Your task to perform on an android device: change the clock display to analog Image 0: 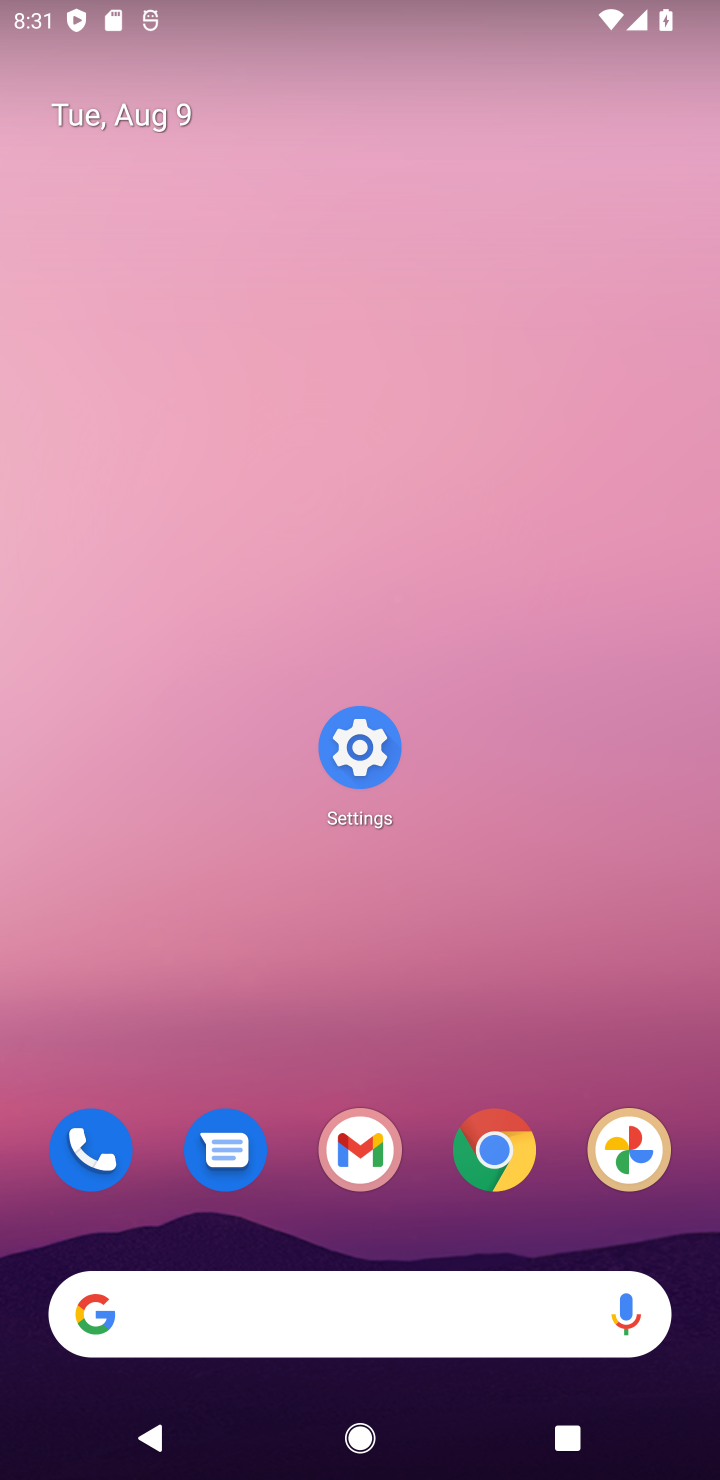
Step 0: drag from (396, 1027) to (471, 345)
Your task to perform on an android device: change the clock display to analog Image 1: 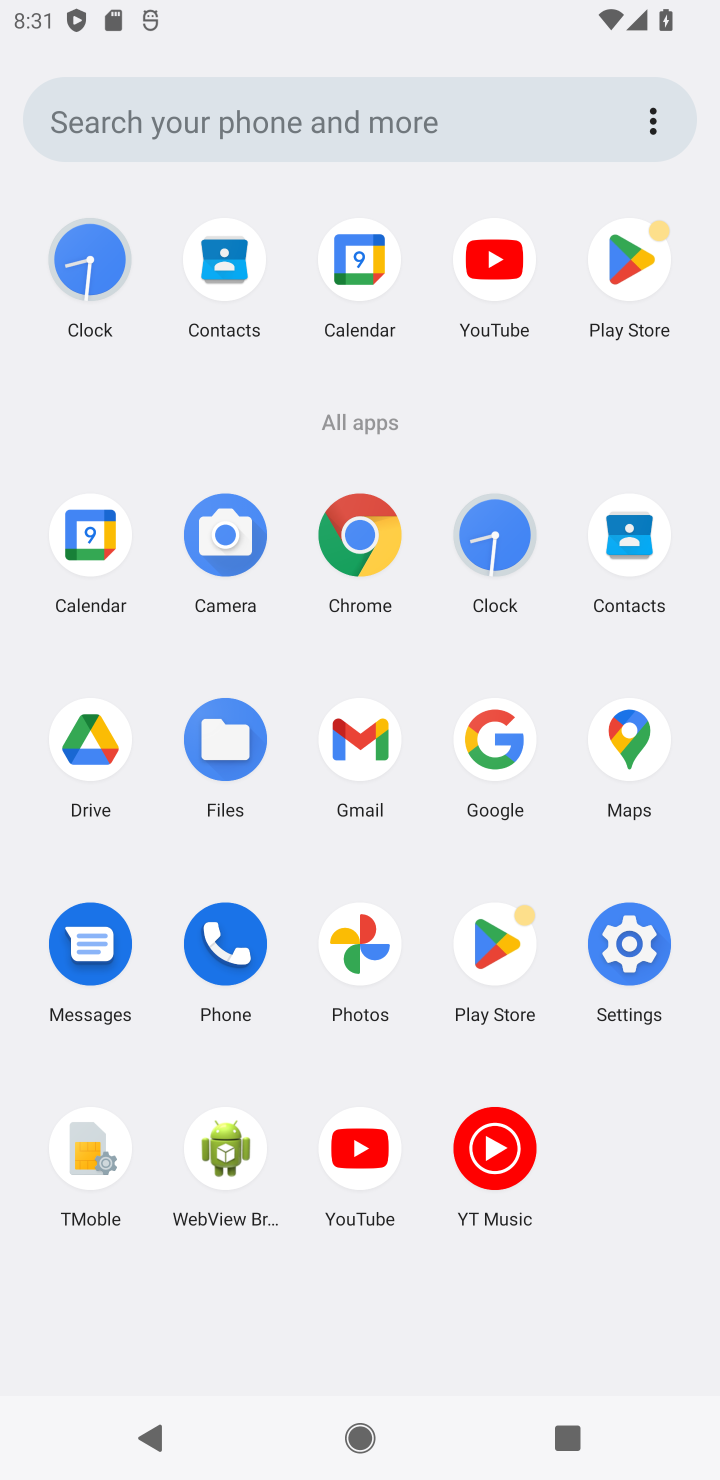
Step 1: click (486, 541)
Your task to perform on an android device: change the clock display to analog Image 2: 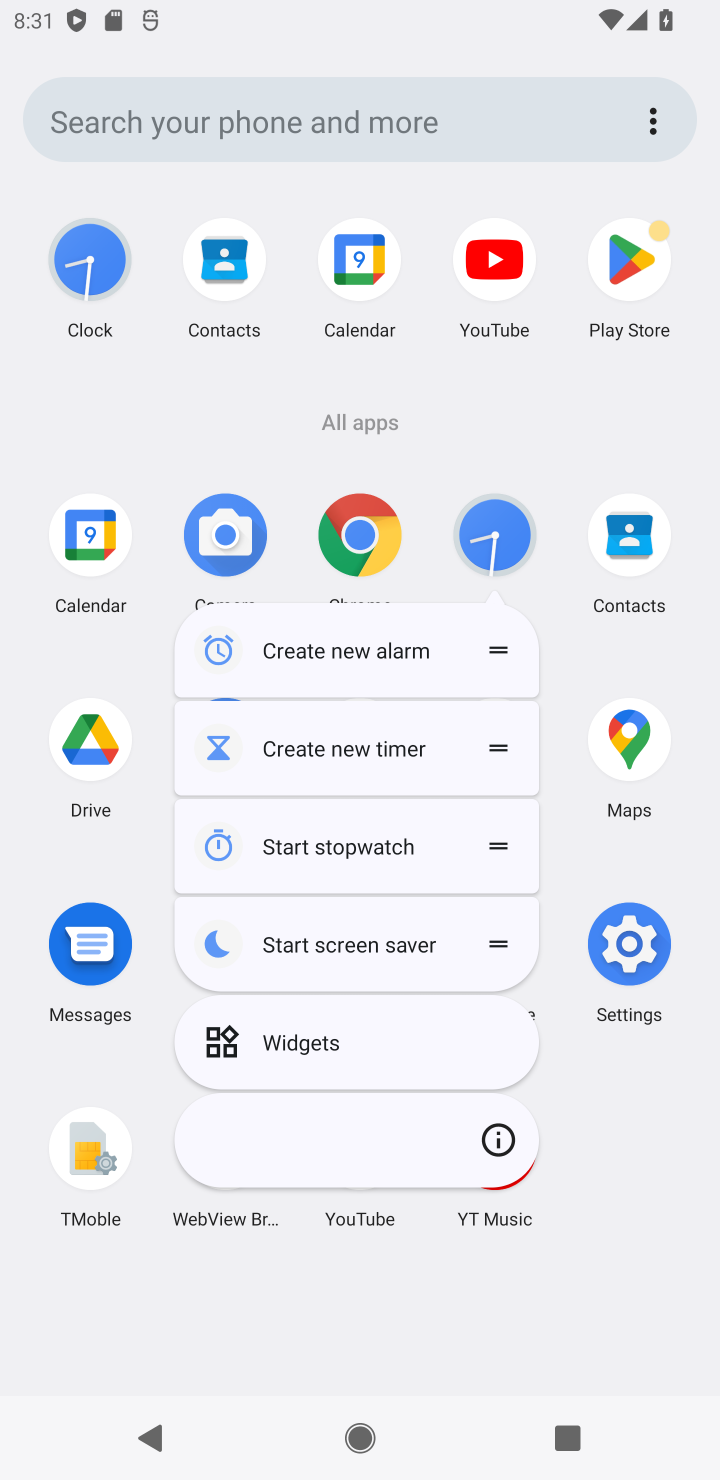
Step 2: click (494, 537)
Your task to perform on an android device: change the clock display to analog Image 3: 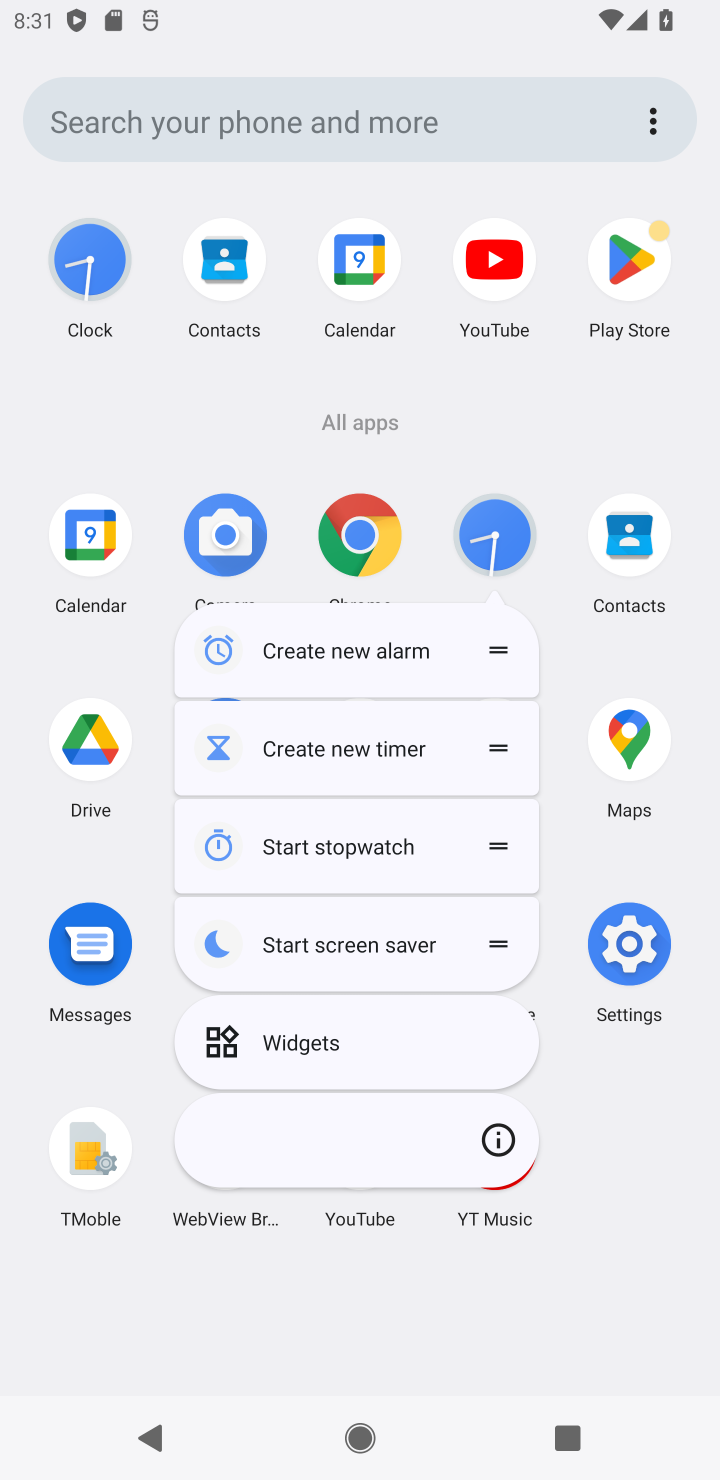
Step 3: click (496, 539)
Your task to perform on an android device: change the clock display to analog Image 4: 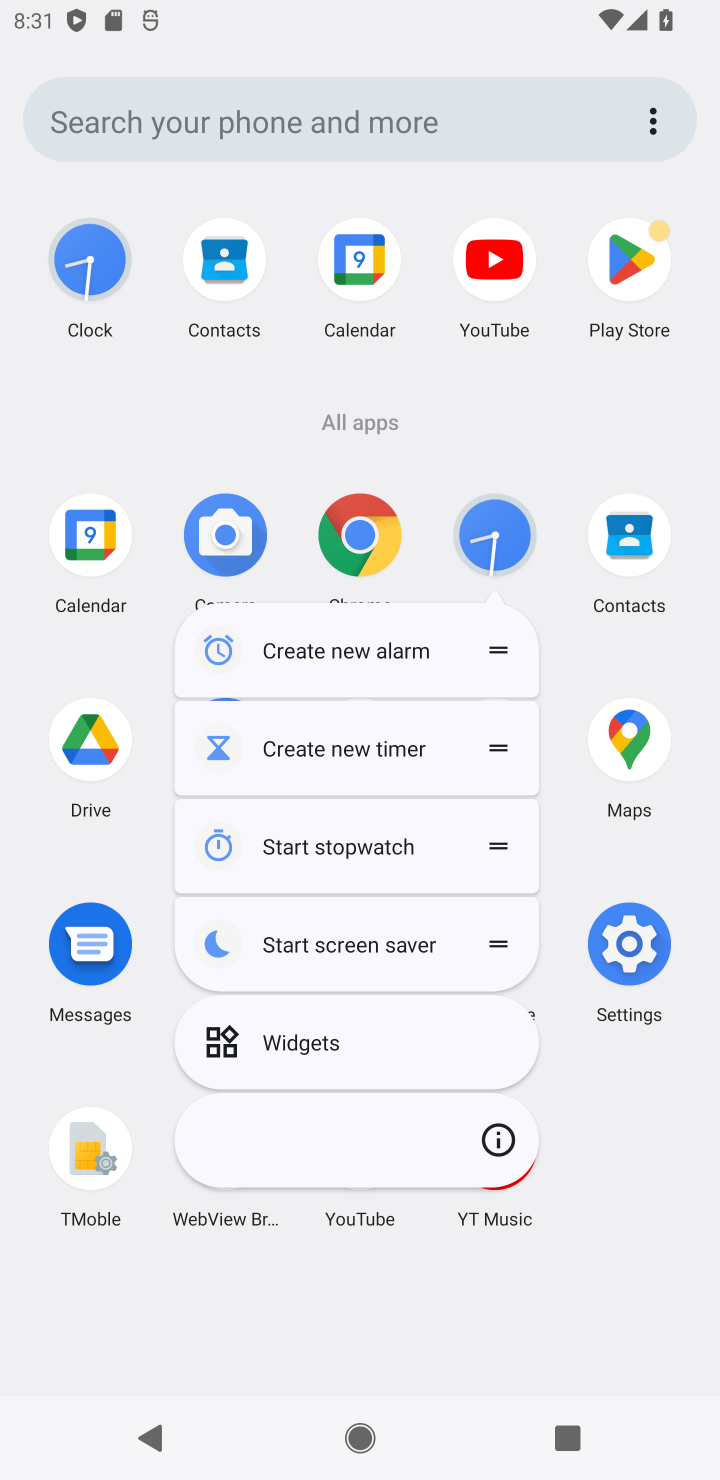
Step 4: click (492, 535)
Your task to perform on an android device: change the clock display to analog Image 5: 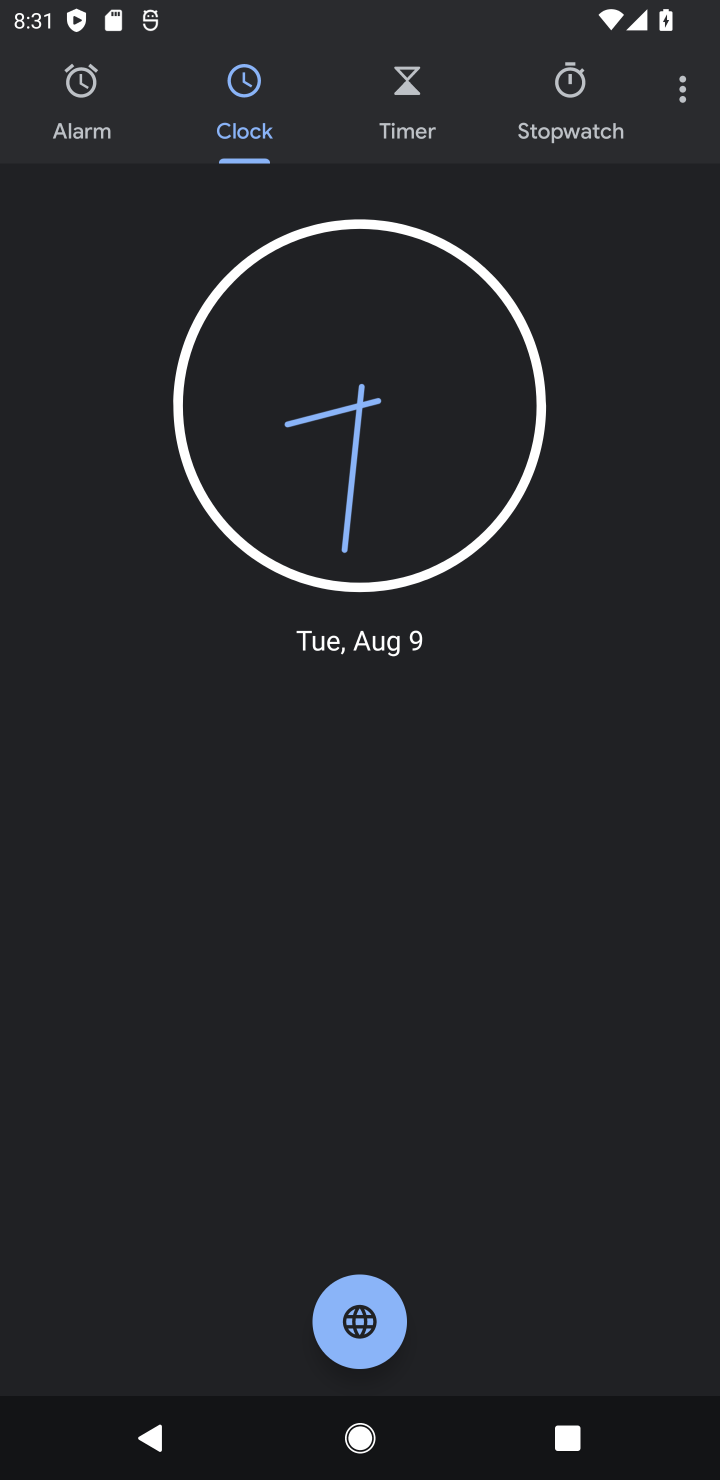
Step 5: click (682, 96)
Your task to perform on an android device: change the clock display to analog Image 6: 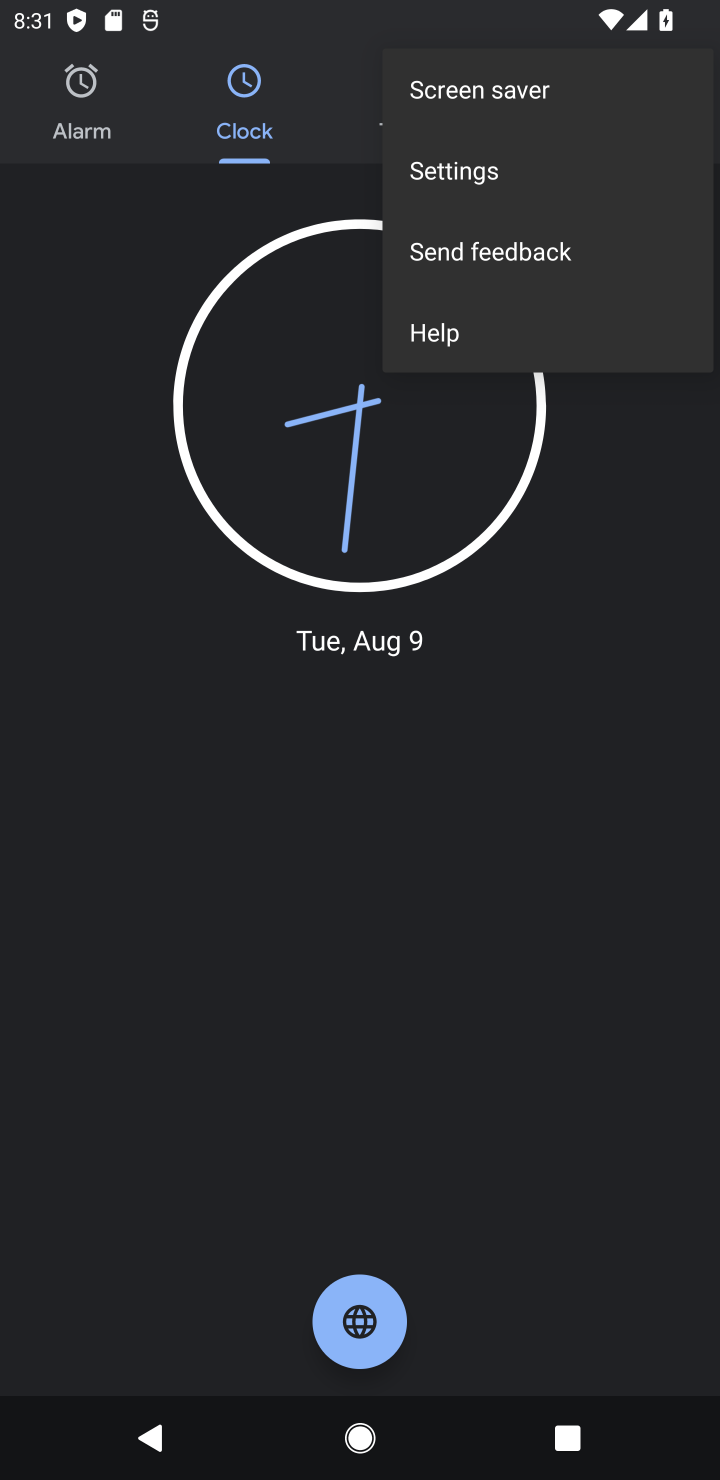
Step 6: click (465, 183)
Your task to perform on an android device: change the clock display to analog Image 7: 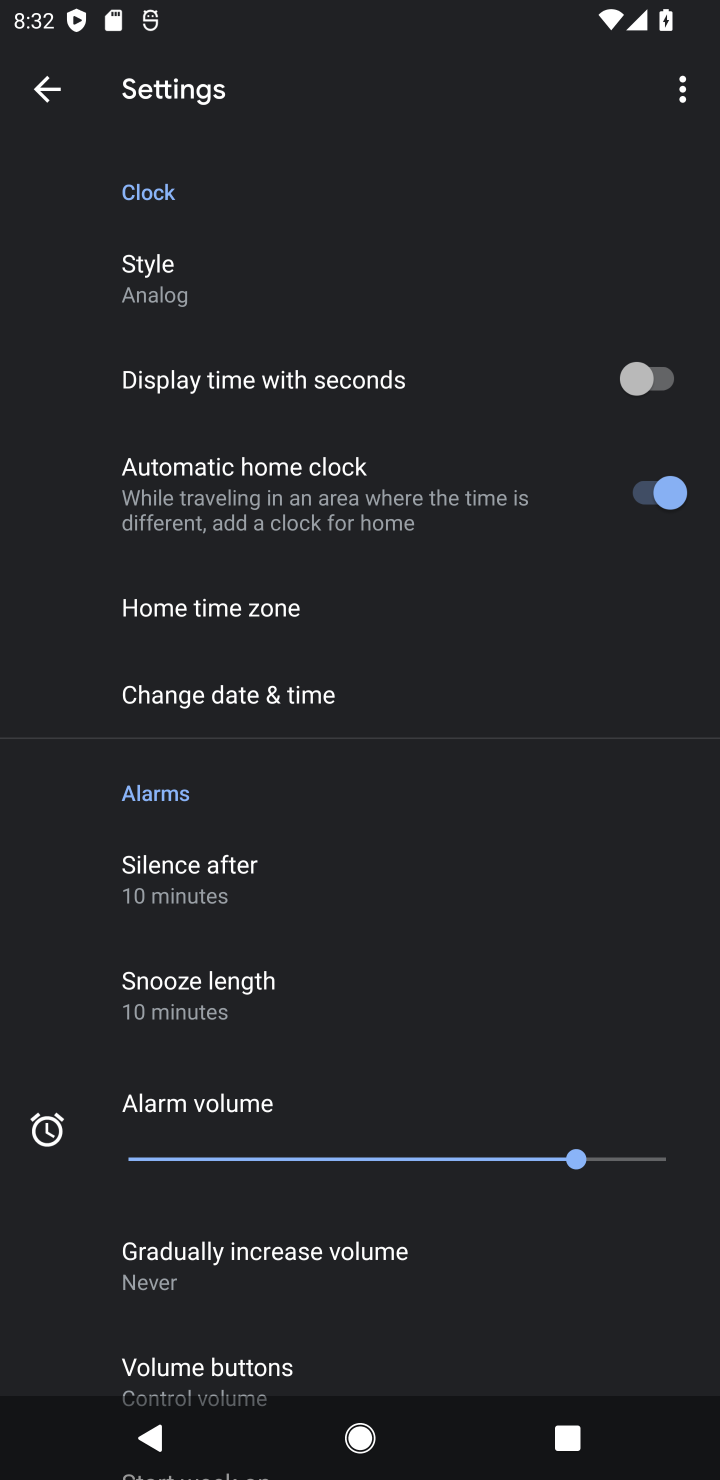
Step 7: task complete